Your task to perform on an android device: Open the calendar and show me this week's events? Image 0: 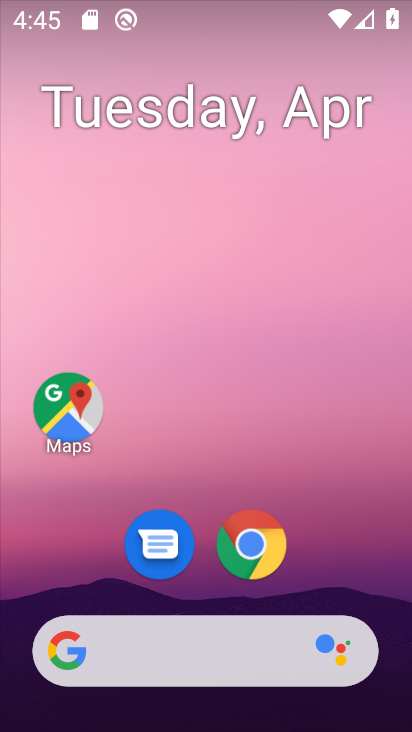
Step 0: drag from (254, 606) to (299, 74)
Your task to perform on an android device: Open the calendar and show me this week's events? Image 1: 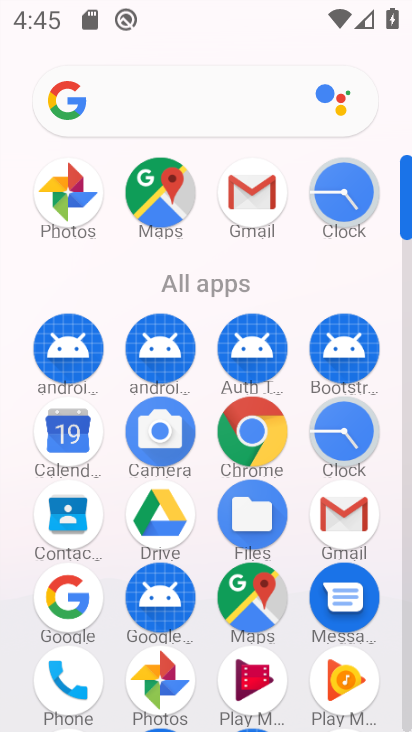
Step 1: drag from (197, 684) to (325, 303)
Your task to perform on an android device: Open the calendar and show me this week's events? Image 2: 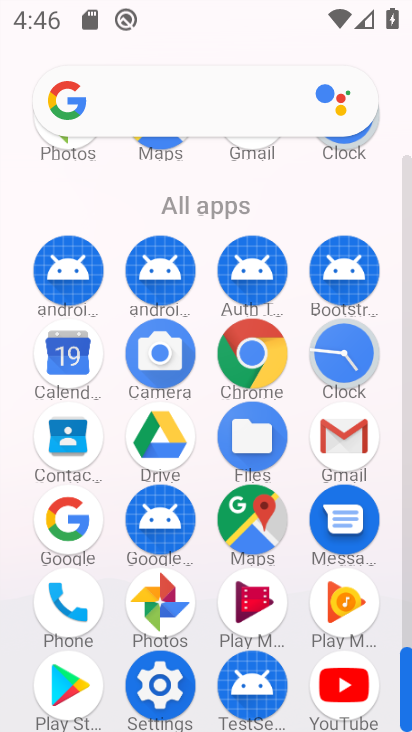
Step 2: click (56, 354)
Your task to perform on an android device: Open the calendar and show me this week's events? Image 3: 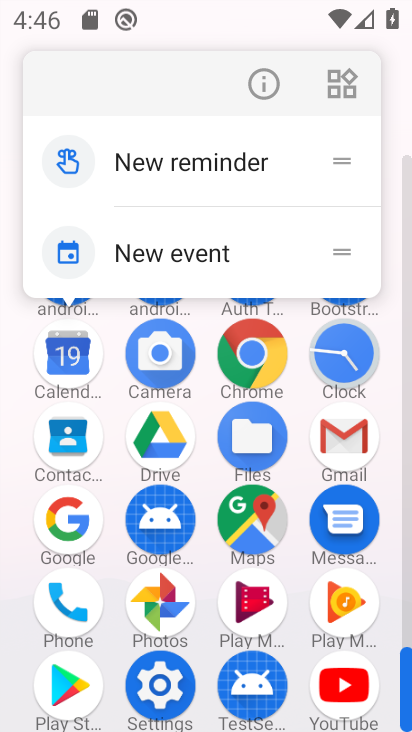
Step 3: click (66, 363)
Your task to perform on an android device: Open the calendar and show me this week's events? Image 4: 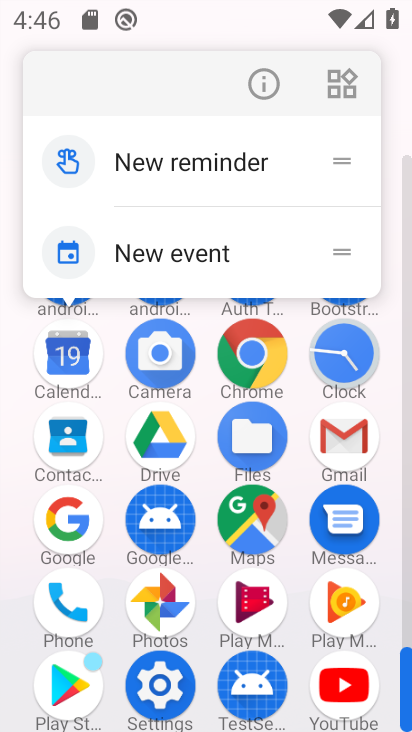
Step 4: click (66, 363)
Your task to perform on an android device: Open the calendar and show me this week's events? Image 5: 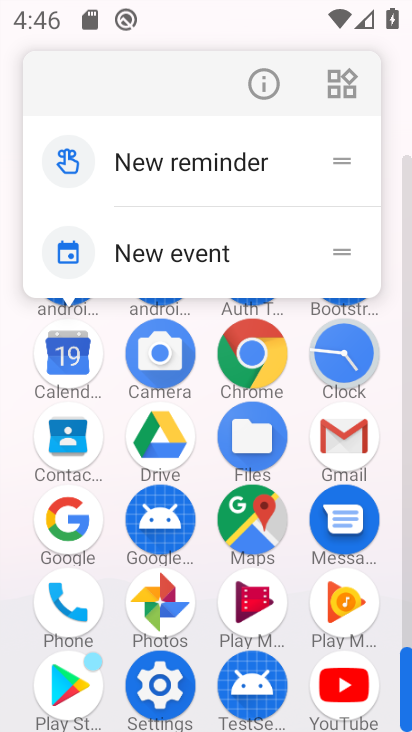
Step 5: click (66, 363)
Your task to perform on an android device: Open the calendar and show me this week's events? Image 6: 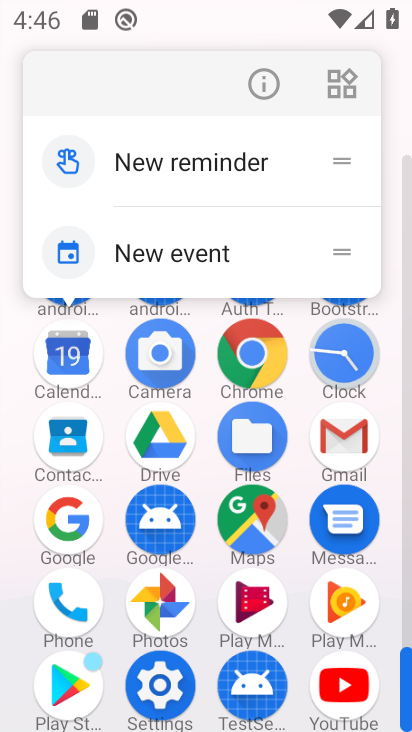
Step 6: click (66, 363)
Your task to perform on an android device: Open the calendar and show me this week's events? Image 7: 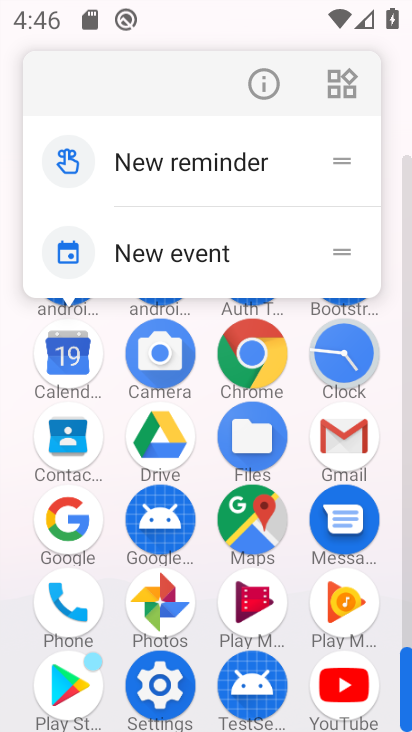
Step 7: click (66, 363)
Your task to perform on an android device: Open the calendar and show me this week's events? Image 8: 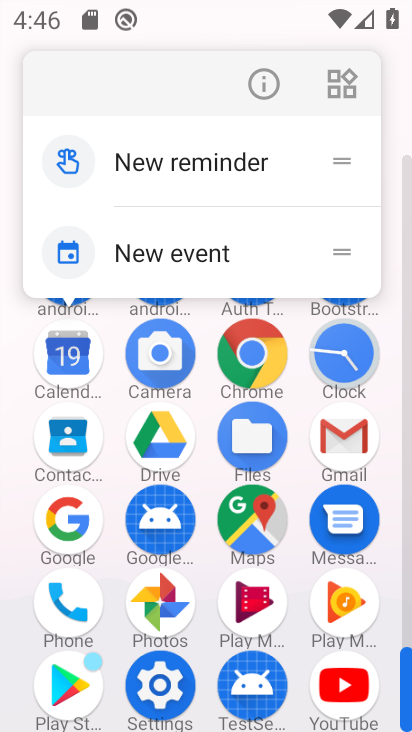
Step 8: click (66, 363)
Your task to perform on an android device: Open the calendar and show me this week's events? Image 9: 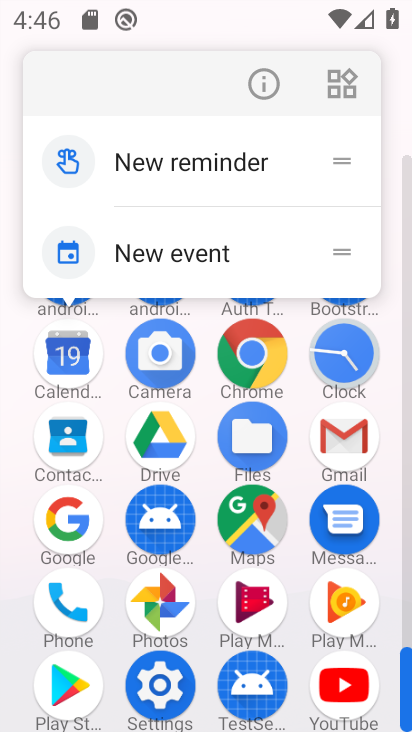
Step 9: click (66, 363)
Your task to perform on an android device: Open the calendar and show me this week's events? Image 10: 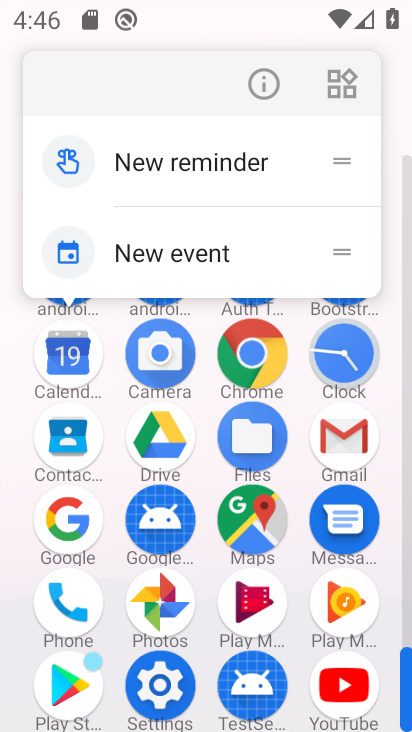
Step 10: click (66, 363)
Your task to perform on an android device: Open the calendar and show me this week's events? Image 11: 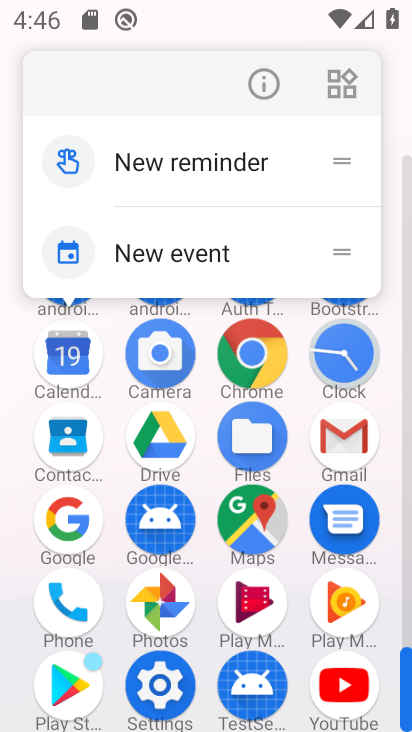
Step 11: click (66, 363)
Your task to perform on an android device: Open the calendar and show me this week's events? Image 12: 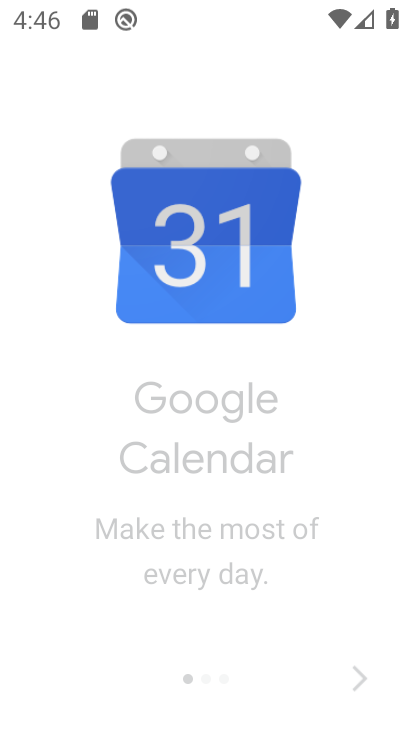
Step 12: click (66, 363)
Your task to perform on an android device: Open the calendar and show me this week's events? Image 13: 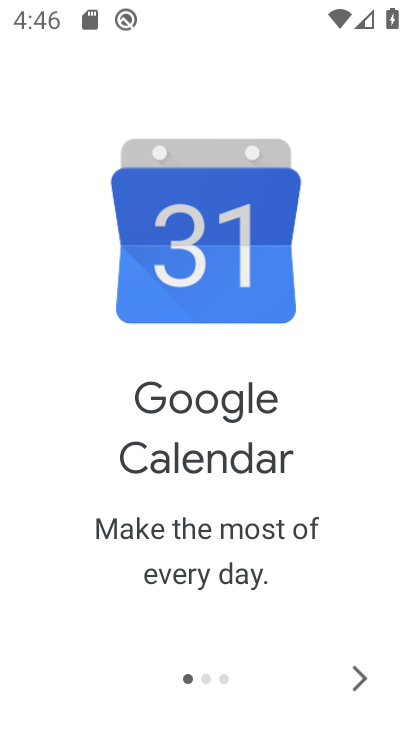
Step 13: click (364, 690)
Your task to perform on an android device: Open the calendar and show me this week's events? Image 14: 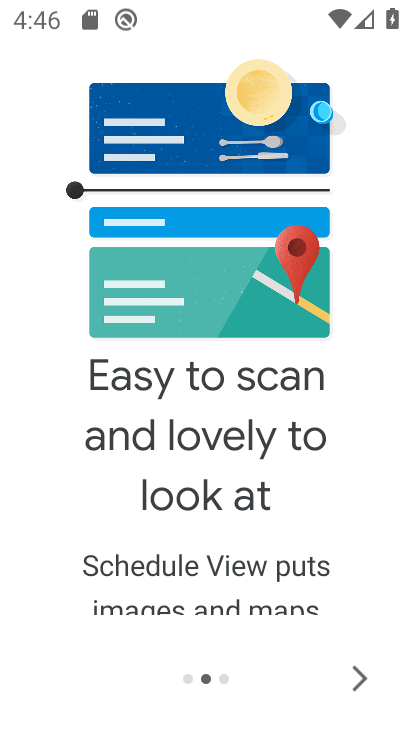
Step 14: click (364, 687)
Your task to perform on an android device: Open the calendar and show me this week's events? Image 15: 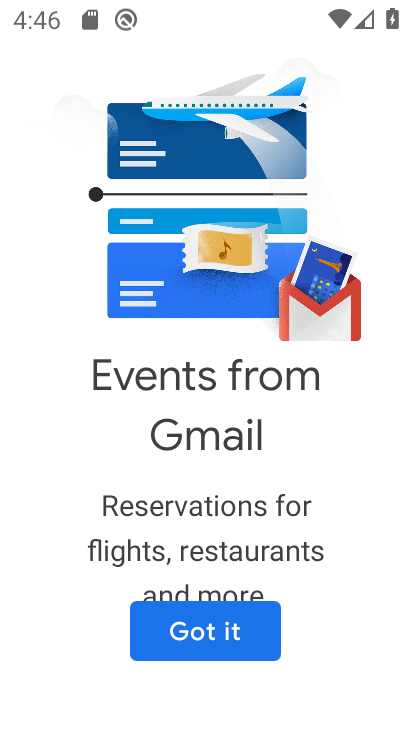
Step 15: click (364, 687)
Your task to perform on an android device: Open the calendar and show me this week's events? Image 16: 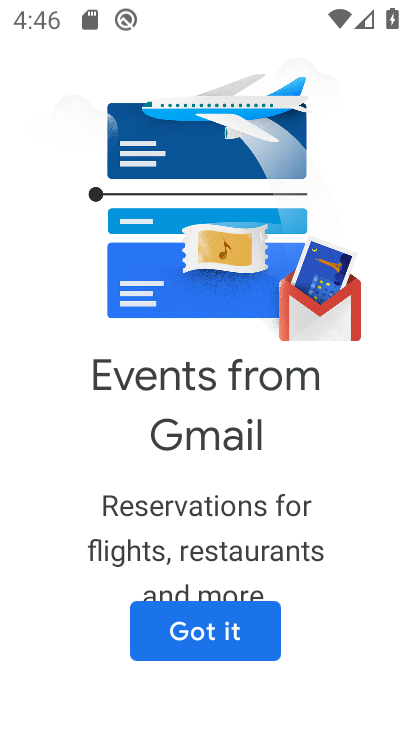
Step 16: click (255, 615)
Your task to perform on an android device: Open the calendar and show me this week's events? Image 17: 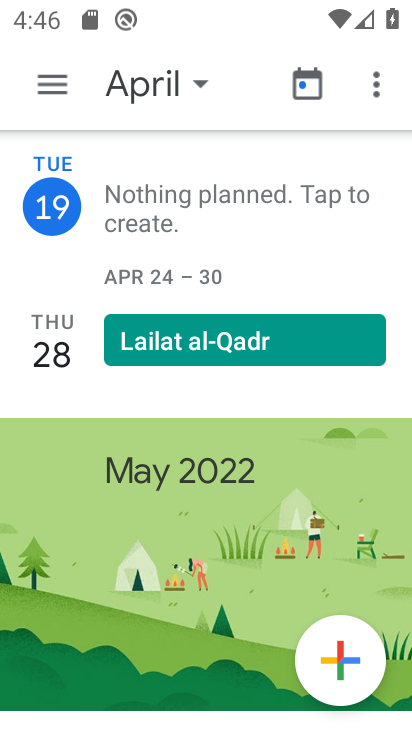
Step 17: task complete